Your task to perform on an android device: turn vacation reply on in the gmail app Image 0: 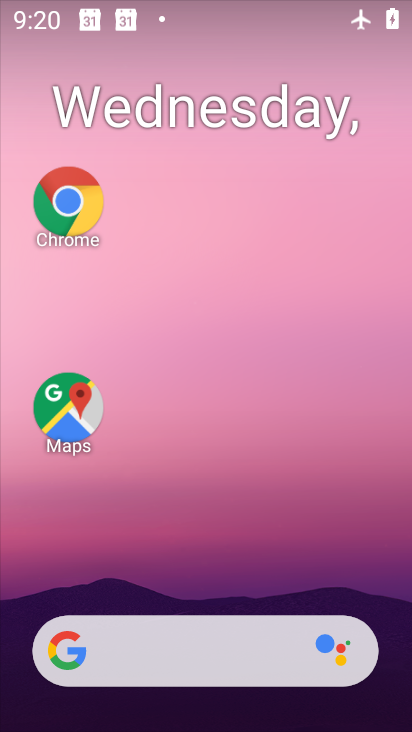
Step 0: drag from (212, 591) to (138, 63)
Your task to perform on an android device: turn vacation reply on in the gmail app Image 1: 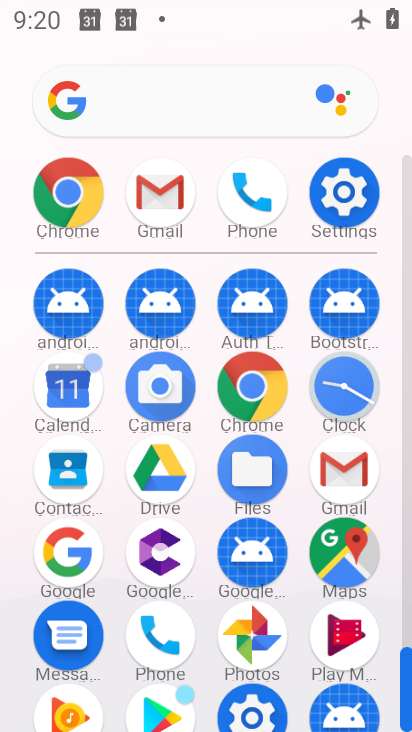
Step 1: click (343, 468)
Your task to perform on an android device: turn vacation reply on in the gmail app Image 2: 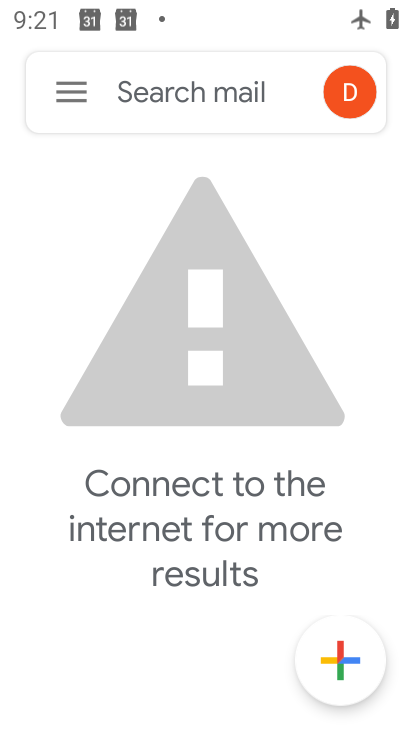
Step 2: click (62, 83)
Your task to perform on an android device: turn vacation reply on in the gmail app Image 3: 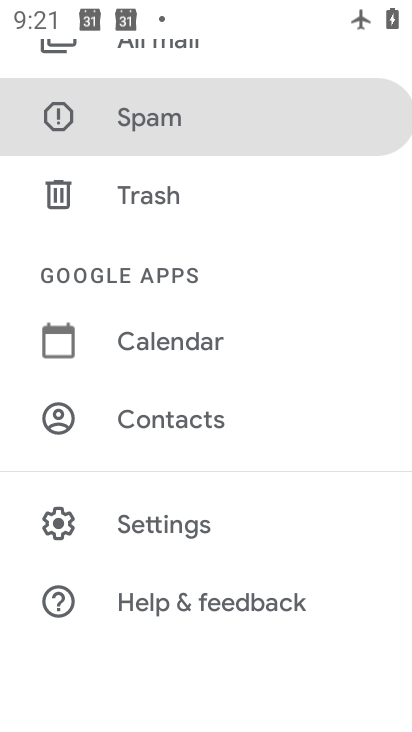
Step 3: click (155, 537)
Your task to perform on an android device: turn vacation reply on in the gmail app Image 4: 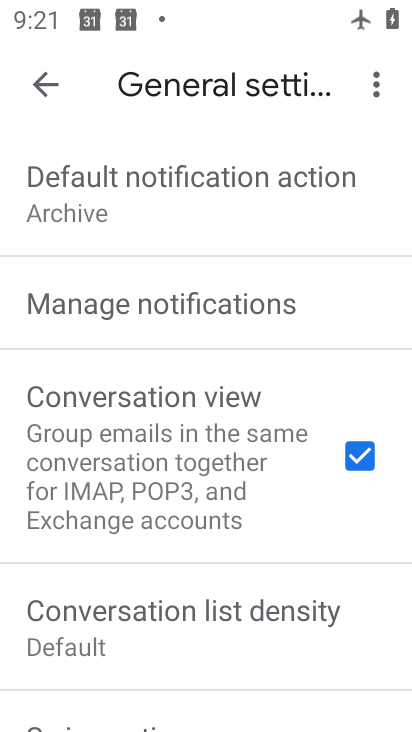
Step 4: drag from (318, 676) to (223, 197)
Your task to perform on an android device: turn vacation reply on in the gmail app Image 5: 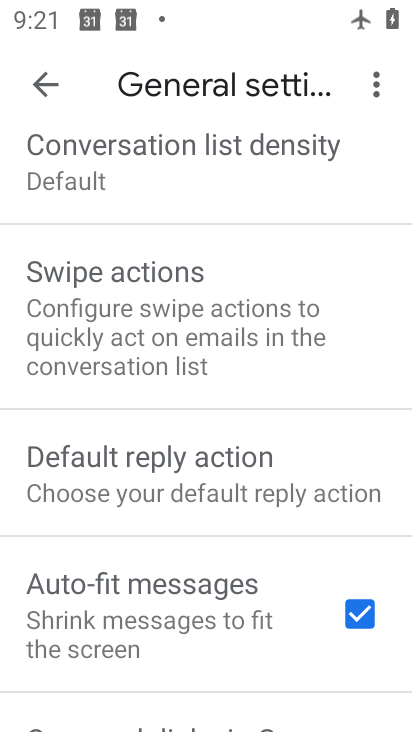
Step 5: drag from (223, 674) to (149, 284)
Your task to perform on an android device: turn vacation reply on in the gmail app Image 6: 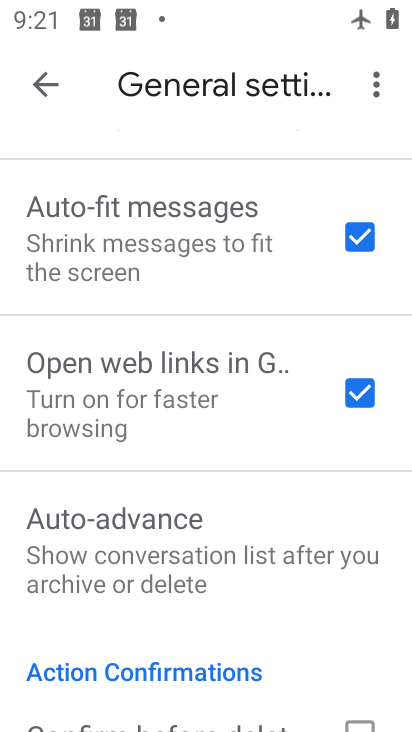
Step 6: drag from (241, 626) to (183, 91)
Your task to perform on an android device: turn vacation reply on in the gmail app Image 7: 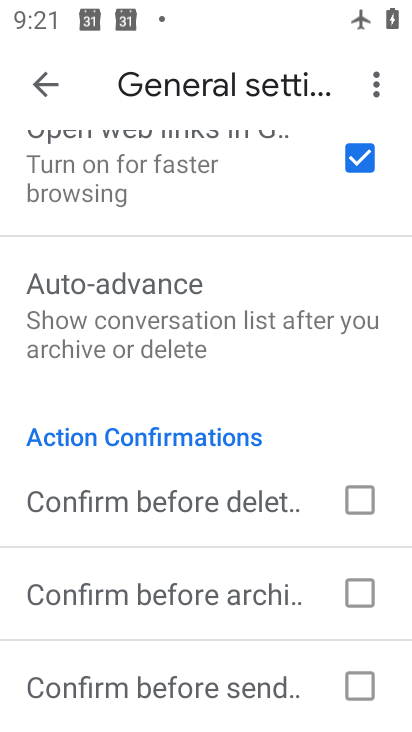
Step 7: click (35, 96)
Your task to perform on an android device: turn vacation reply on in the gmail app Image 8: 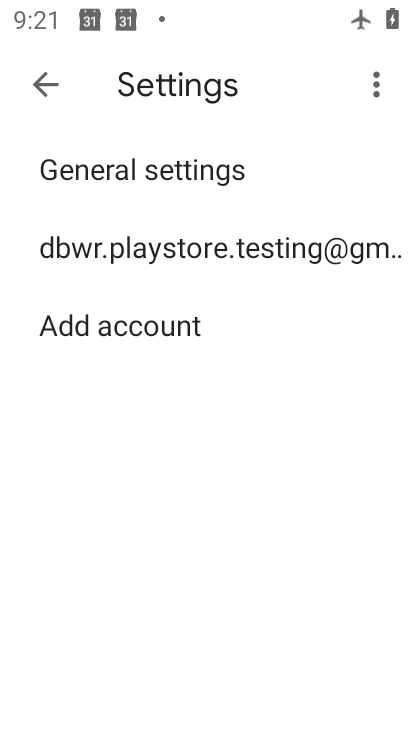
Step 8: click (203, 256)
Your task to perform on an android device: turn vacation reply on in the gmail app Image 9: 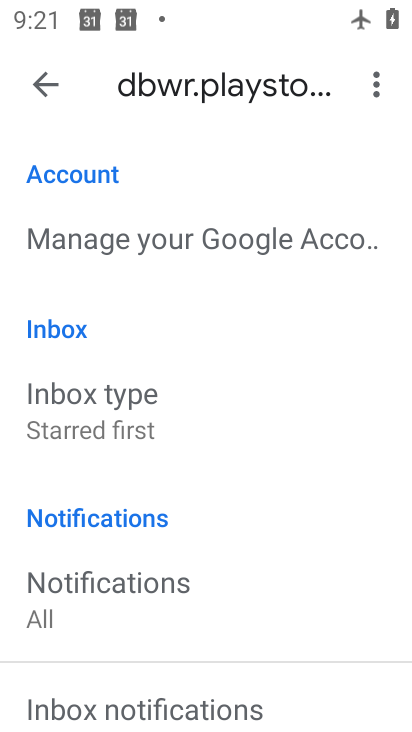
Step 9: drag from (274, 636) to (360, 97)
Your task to perform on an android device: turn vacation reply on in the gmail app Image 10: 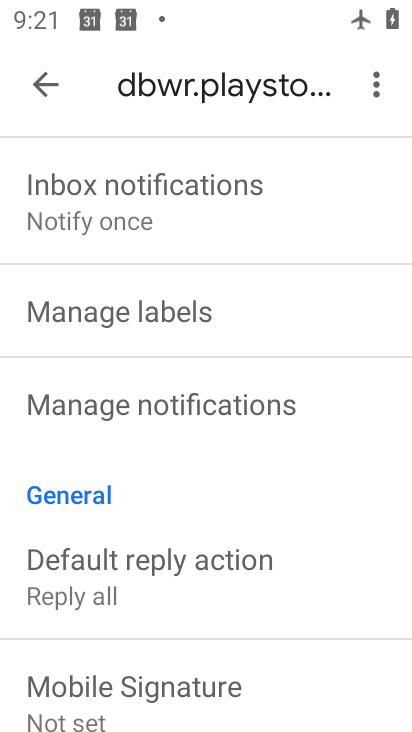
Step 10: drag from (213, 609) to (65, 109)
Your task to perform on an android device: turn vacation reply on in the gmail app Image 11: 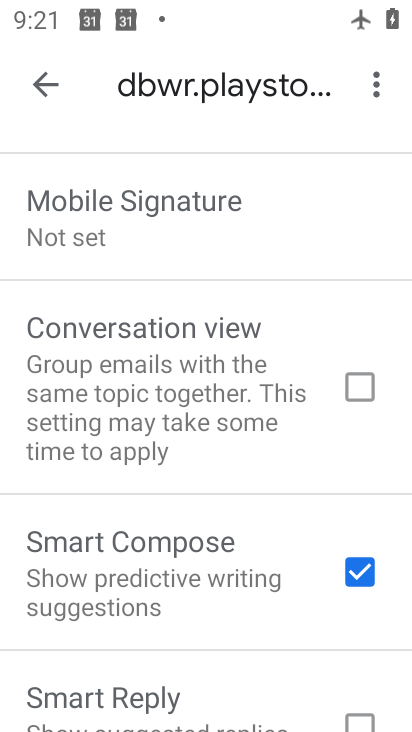
Step 11: drag from (309, 657) to (242, 181)
Your task to perform on an android device: turn vacation reply on in the gmail app Image 12: 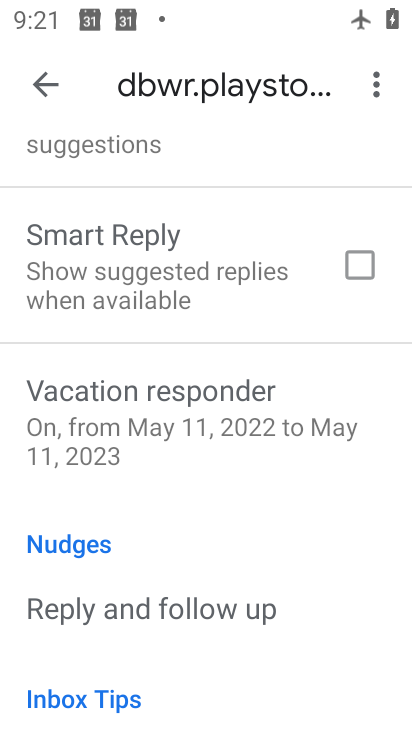
Step 12: click (306, 416)
Your task to perform on an android device: turn vacation reply on in the gmail app Image 13: 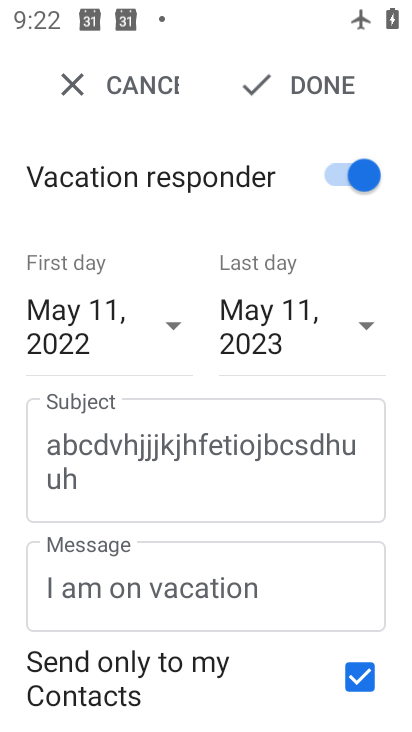
Step 13: click (290, 72)
Your task to perform on an android device: turn vacation reply on in the gmail app Image 14: 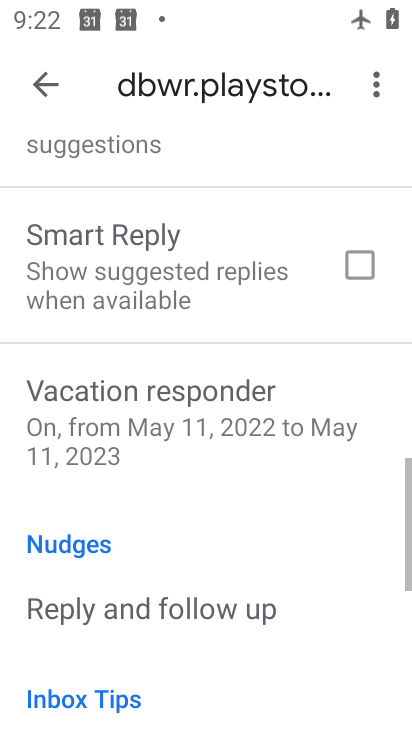
Step 14: task complete